Your task to perform on an android device: toggle notifications settings in the gmail app Image 0: 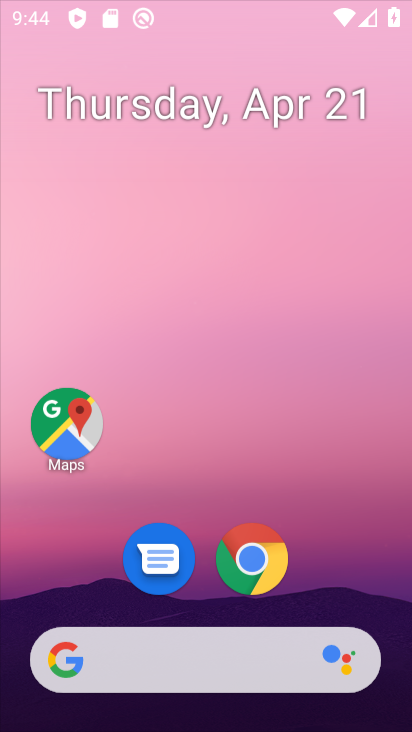
Step 0: click (328, 214)
Your task to perform on an android device: toggle notifications settings in the gmail app Image 1: 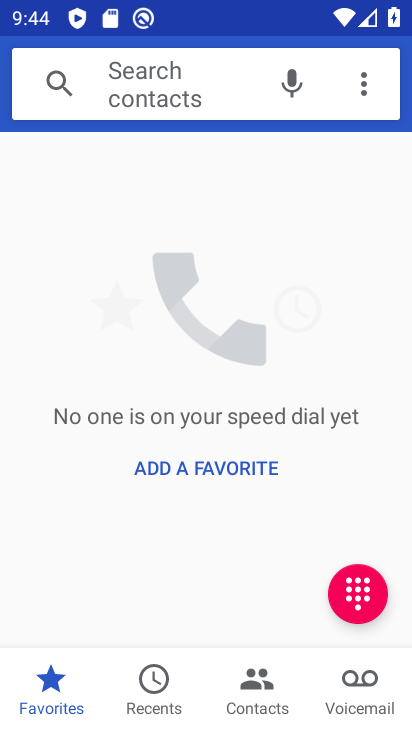
Step 1: press home button
Your task to perform on an android device: toggle notifications settings in the gmail app Image 2: 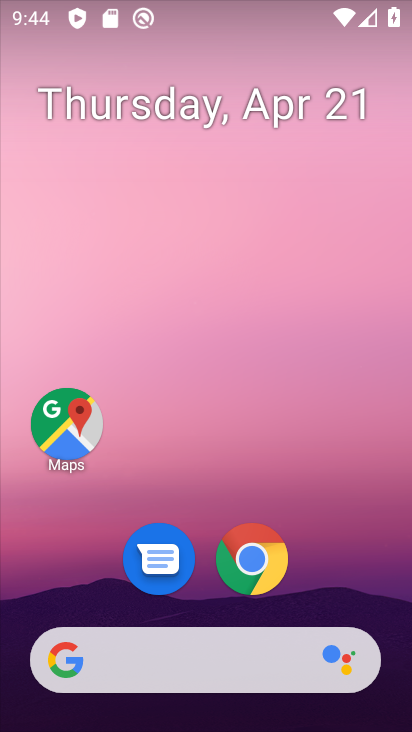
Step 2: drag from (343, 526) to (334, 153)
Your task to perform on an android device: toggle notifications settings in the gmail app Image 3: 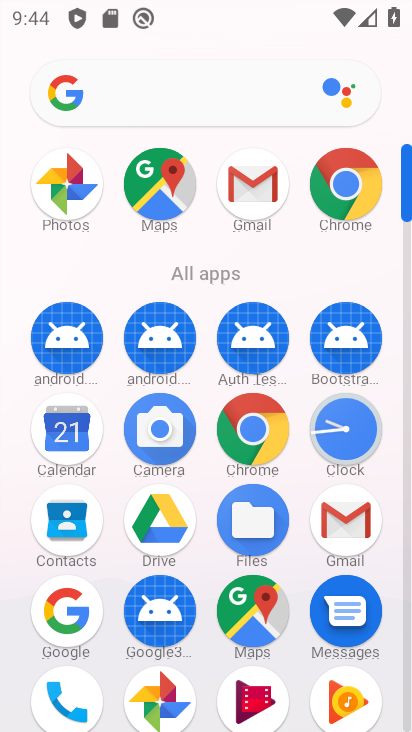
Step 3: click (343, 526)
Your task to perform on an android device: toggle notifications settings in the gmail app Image 4: 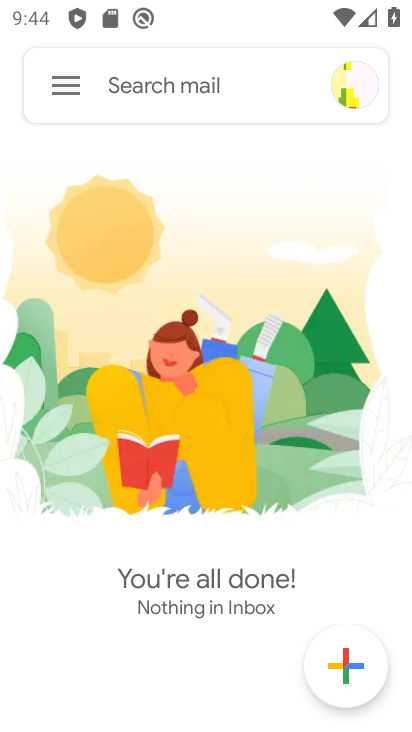
Step 4: click (62, 91)
Your task to perform on an android device: toggle notifications settings in the gmail app Image 5: 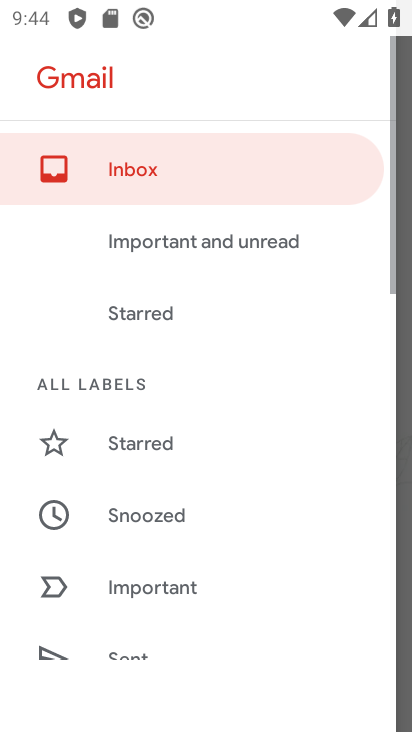
Step 5: drag from (187, 626) to (215, 161)
Your task to perform on an android device: toggle notifications settings in the gmail app Image 6: 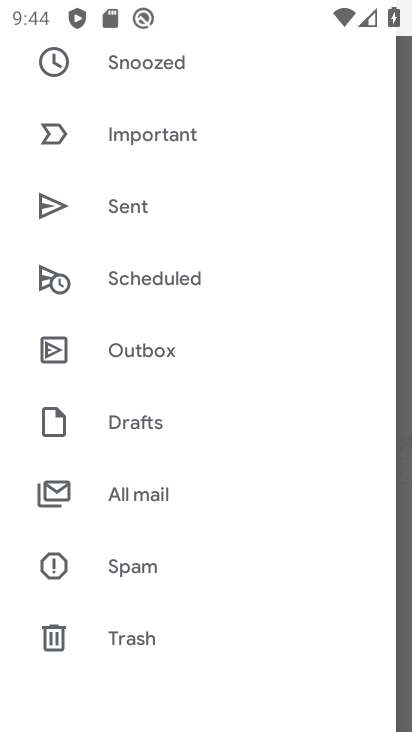
Step 6: drag from (192, 606) to (222, 206)
Your task to perform on an android device: toggle notifications settings in the gmail app Image 7: 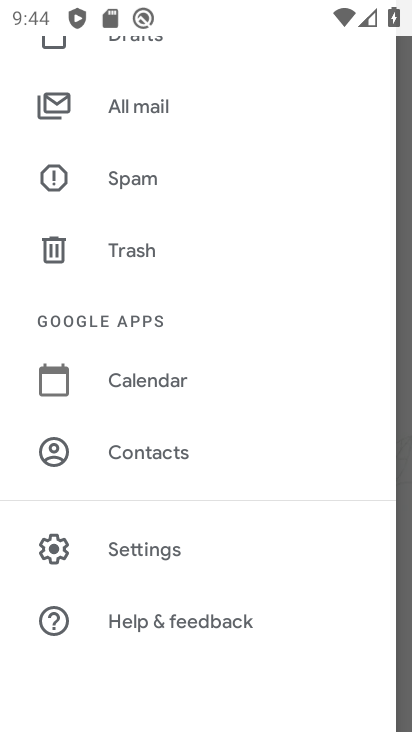
Step 7: click (150, 553)
Your task to perform on an android device: toggle notifications settings in the gmail app Image 8: 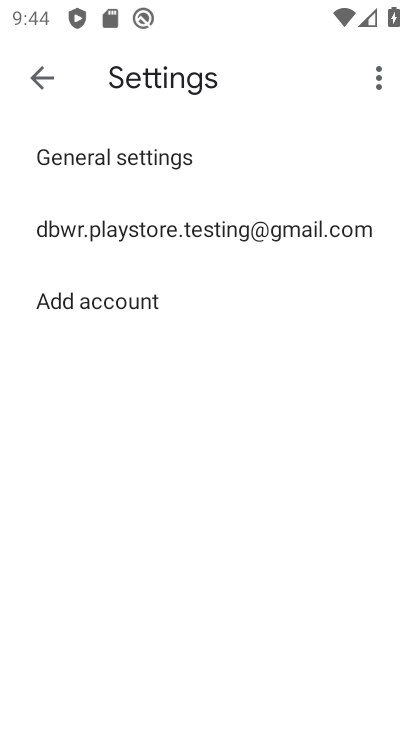
Step 8: click (234, 225)
Your task to perform on an android device: toggle notifications settings in the gmail app Image 9: 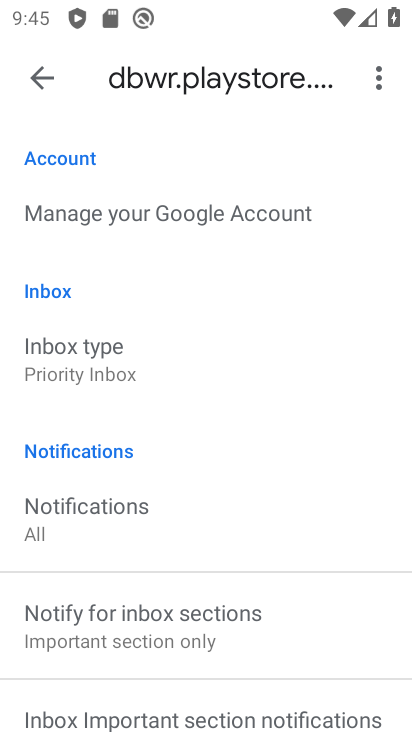
Step 9: click (139, 530)
Your task to perform on an android device: toggle notifications settings in the gmail app Image 10: 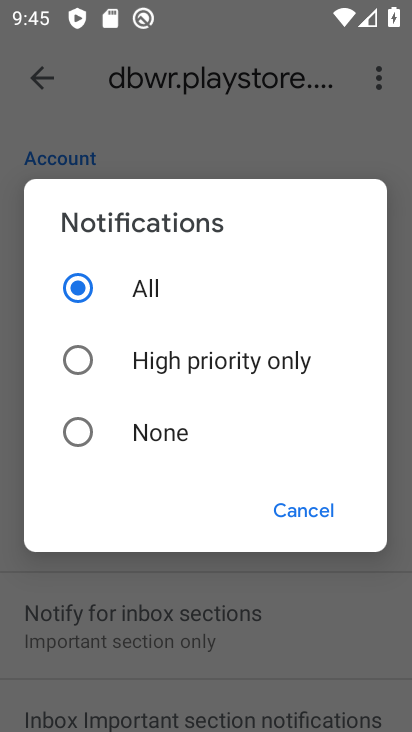
Step 10: click (177, 361)
Your task to perform on an android device: toggle notifications settings in the gmail app Image 11: 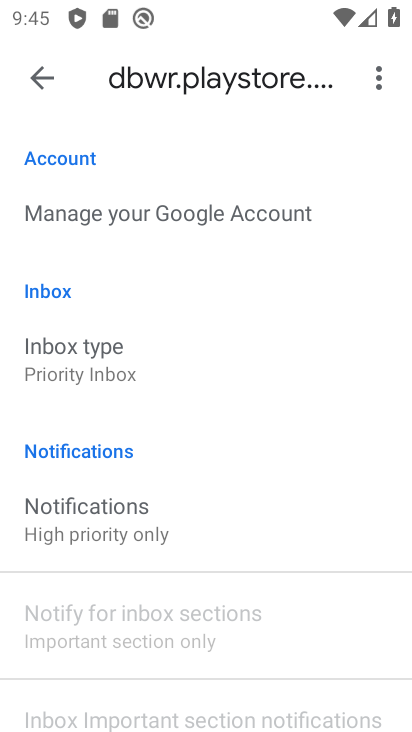
Step 11: task complete